Your task to perform on an android device: Open calendar and show me the first week of next month Image 0: 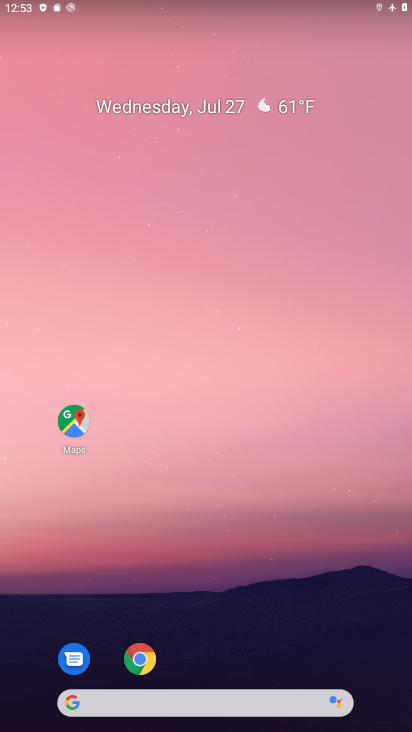
Step 0: drag from (200, 633) to (200, 14)
Your task to perform on an android device: Open calendar and show me the first week of next month Image 1: 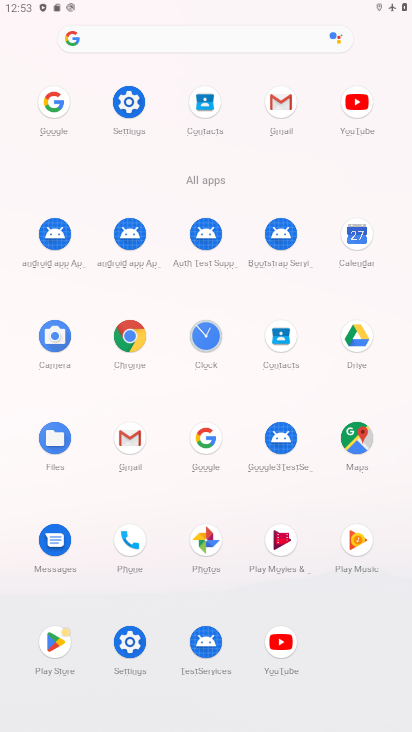
Step 1: click (356, 238)
Your task to perform on an android device: Open calendar and show me the first week of next month Image 2: 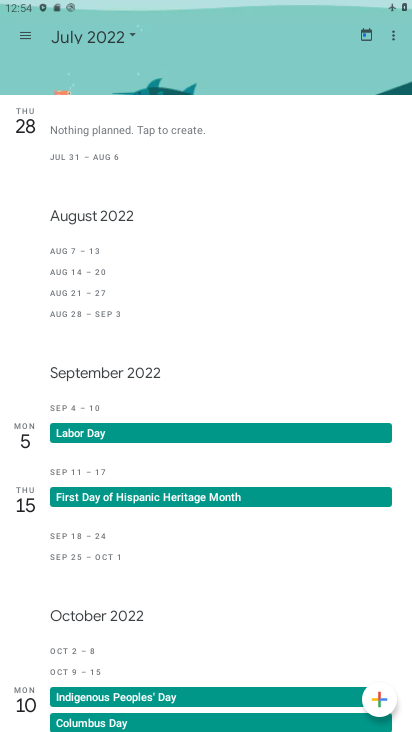
Step 2: click (133, 30)
Your task to perform on an android device: Open calendar and show me the first week of next month Image 3: 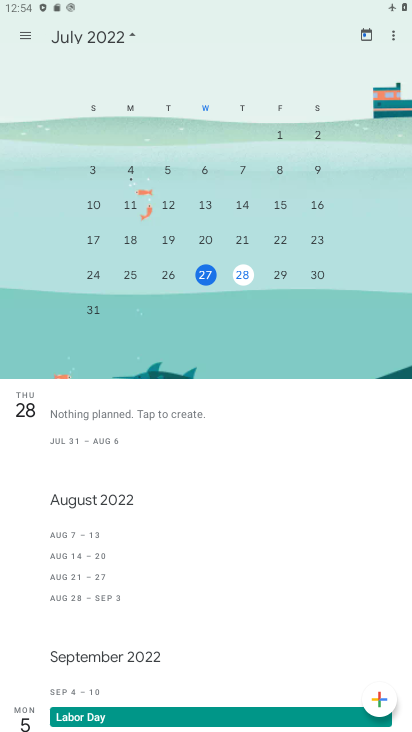
Step 3: task complete